Your task to perform on an android device: see sites visited before in the chrome app Image 0: 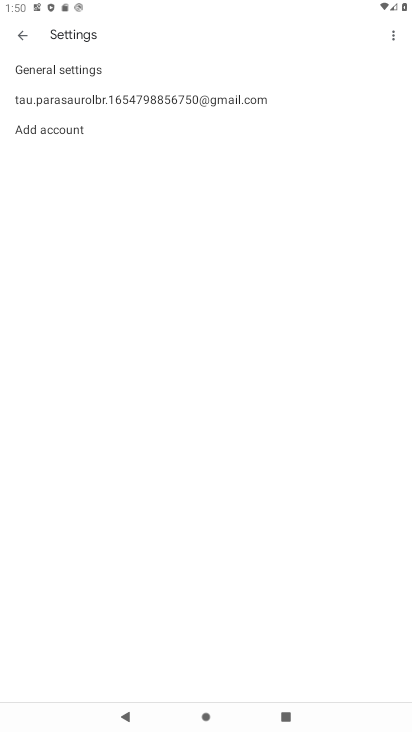
Step 0: press home button
Your task to perform on an android device: see sites visited before in the chrome app Image 1: 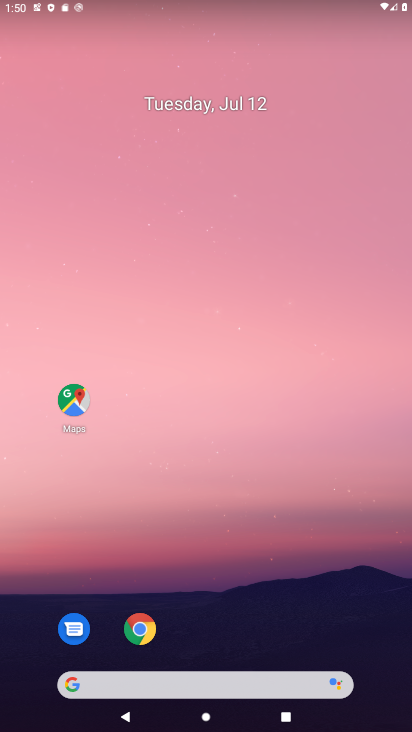
Step 1: drag from (255, 603) to (261, 65)
Your task to perform on an android device: see sites visited before in the chrome app Image 2: 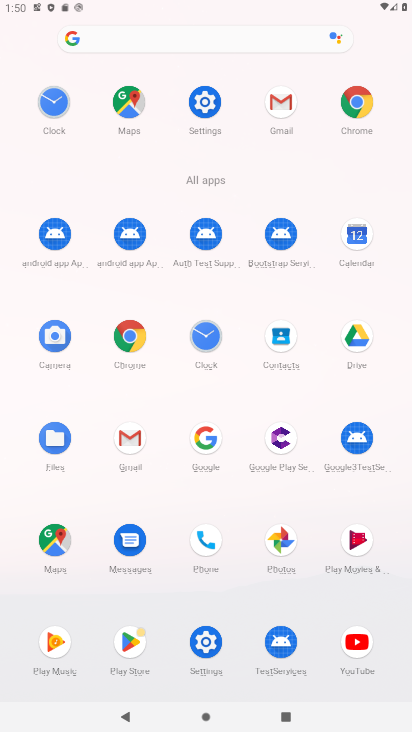
Step 2: click (353, 100)
Your task to perform on an android device: see sites visited before in the chrome app Image 3: 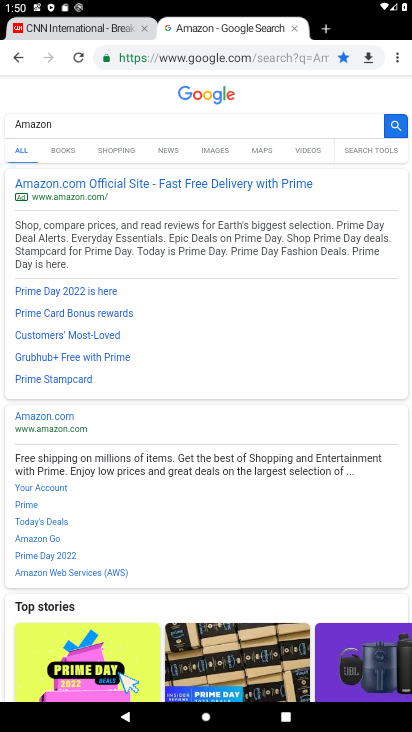
Step 3: click (400, 57)
Your task to perform on an android device: see sites visited before in the chrome app Image 4: 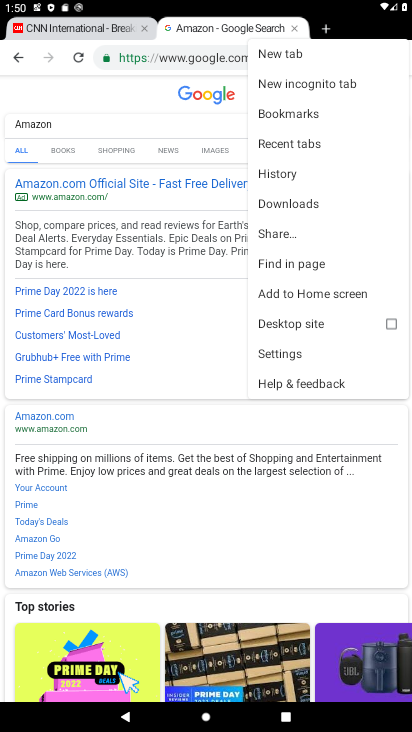
Step 4: click (318, 172)
Your task to perform on an android device: see sites visited before in the chrome app Image 5: 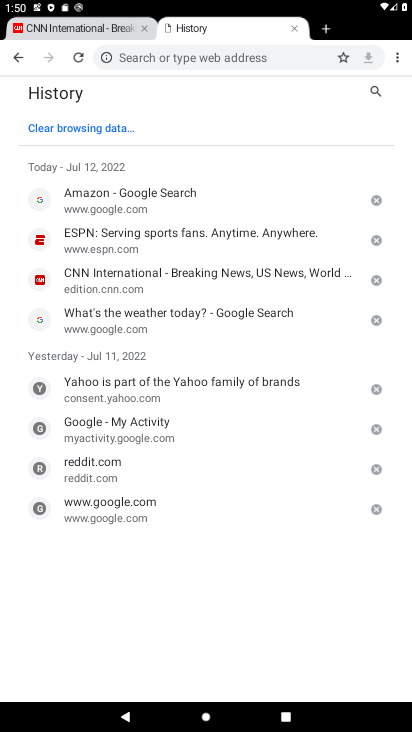
Step 5: task complete